Your task to perform on an android device: What's the weather going to be this weekend? Image 0: 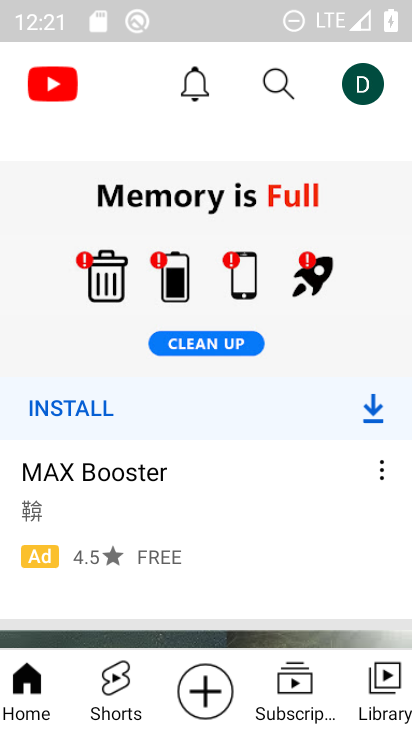
Step 0: press back button
Your task to perform on an android device: What's the weather going to be this weekend? Image 1: 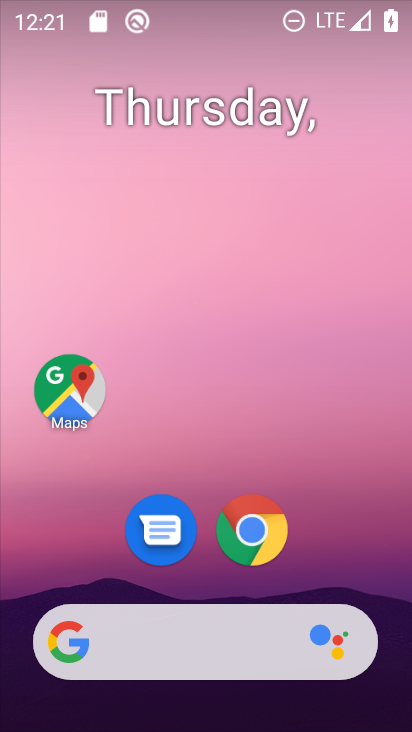
Step 1: drag from (35, 243) to (400, 244)
Your task to perform on an android device: What's the weather going to be this weekend? Image 2: 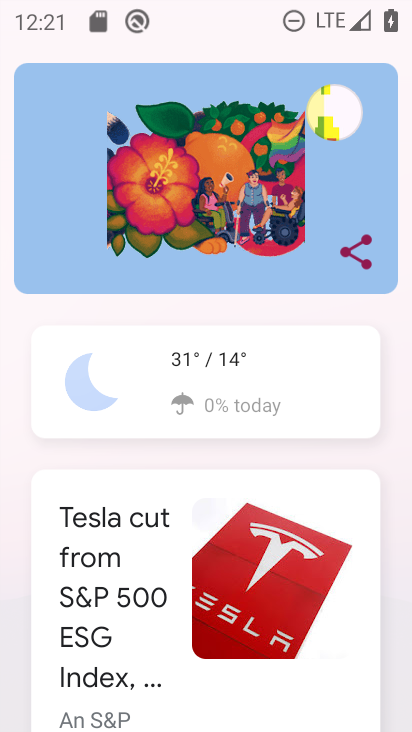
Step 2: click (105, 388)
Your task to perform on an android device: What's the weather going to be this weekend? Image 3: 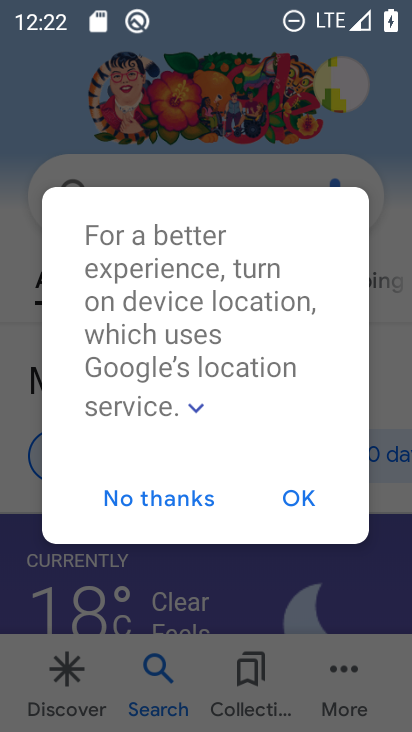
Step 3: click (306, 494)
Your task to perform on an android device: What's the weather going to be this weekend? Image 4: 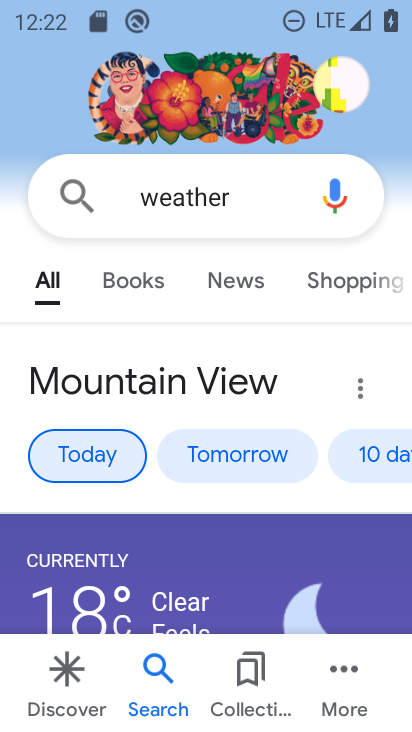
Step 4: click (360, 468)
Your task to perform on an android device: What's the weather going to be this weekend? Image 5: 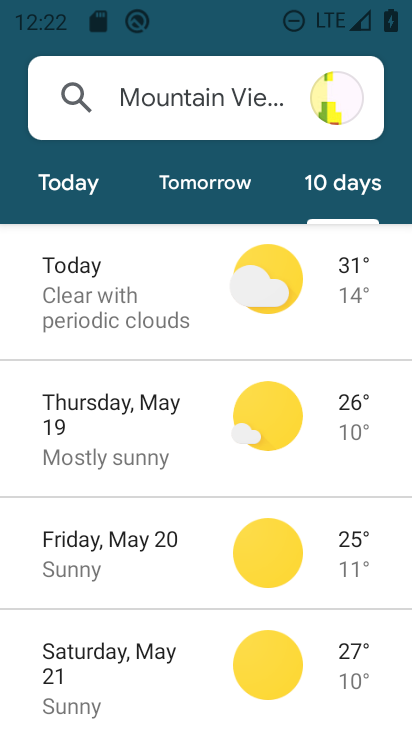
Step 5: task complete